Your task to perform on an android device: toggle location history Image 0: 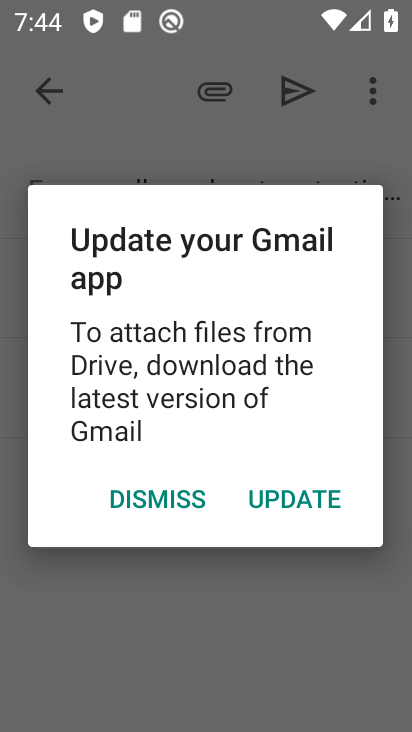
Step 0: press home button
Your task to perform on an android device: toggle location history Image 1: 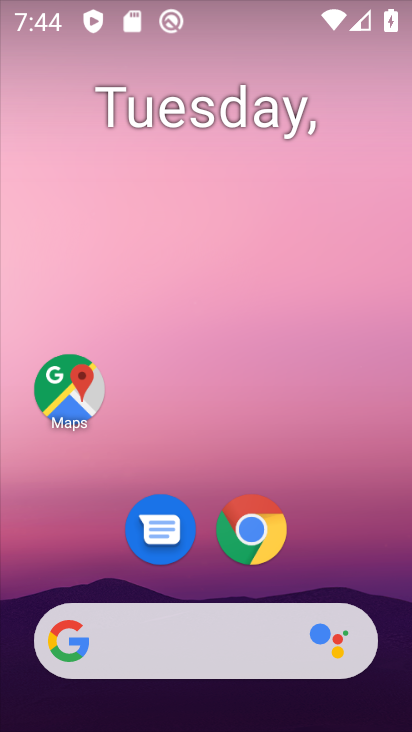
Step 1: drag from (200, 595) to (327, 64)
Your task to perform on an android device: toggle location history Image 2: 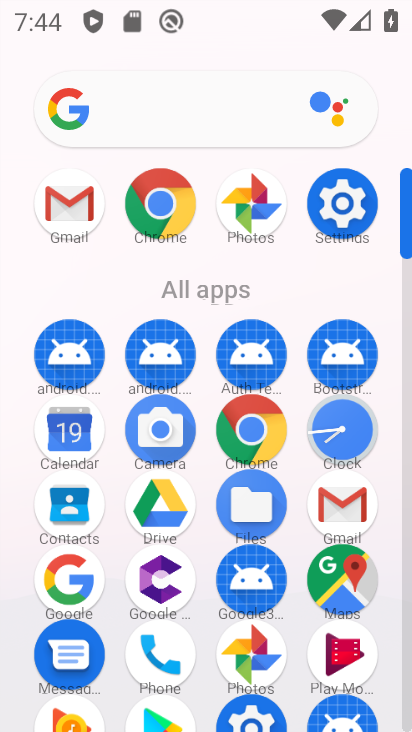
Step 2: click (352, 219)
Your task to perform on an android device: toggle location history Image 3: 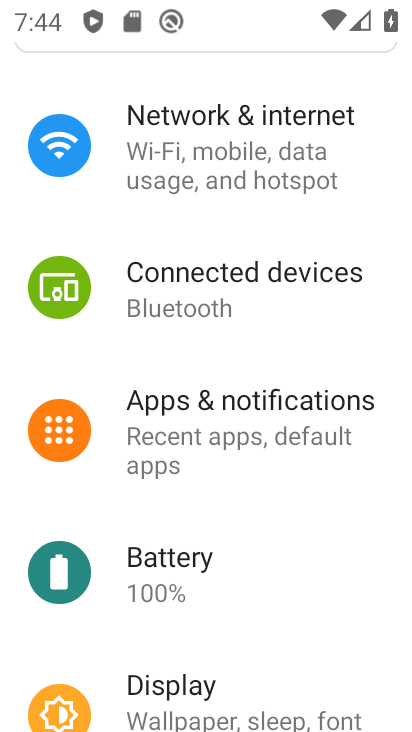
Step 3: drag from (212, 638) to (354, 218)
Your task to perform on an android device: toggle location history Image 4: 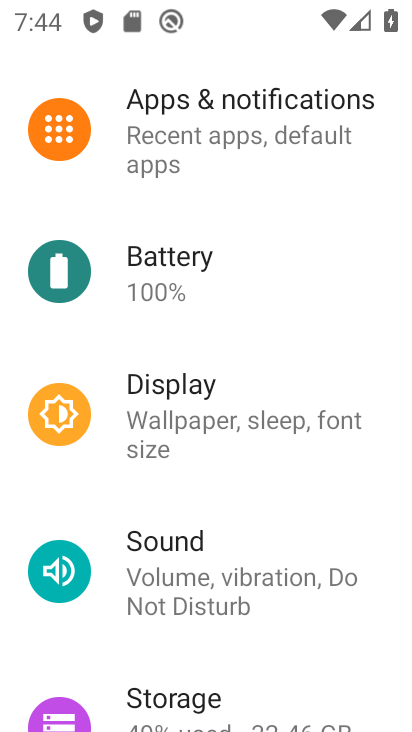
Step 4: drag from (240, 619) to (382, 100)
Your task to perform on an android device: toggle location history Image 5: 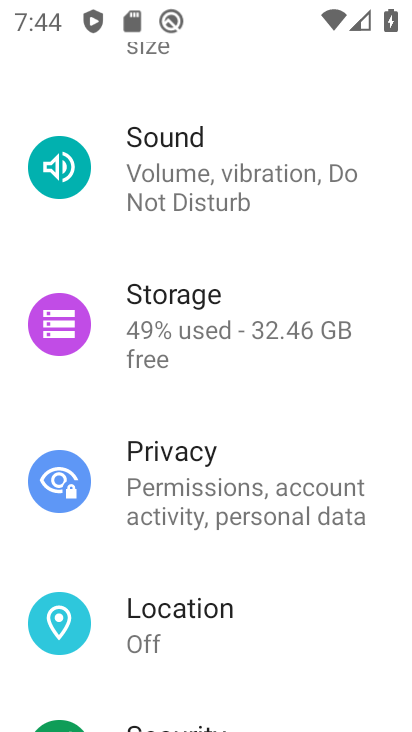
Step 5: click (168, 629)
Your task to perform on an android device: toggle location history Image 6: 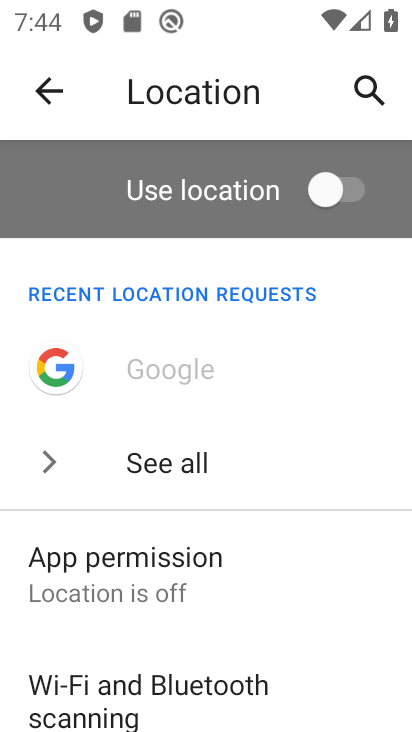
Step 6: drag from (186, 649) to (370, 87)
Your task to perform on an android device: toggle location history Image 7: 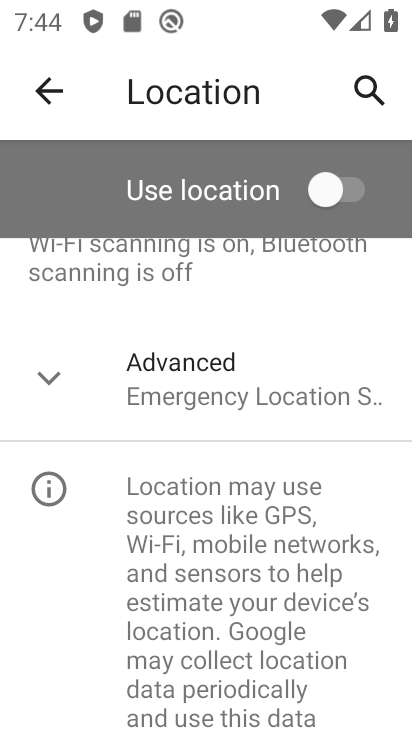
Step 7: click (161, 382)
Your task to perform on an android device: toggle location history Image 8: 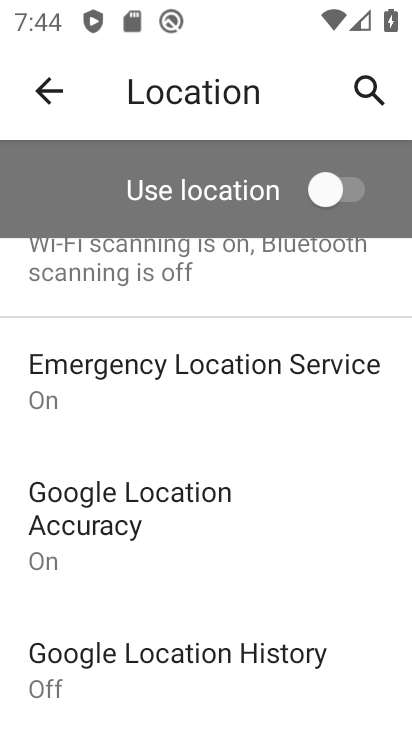
Step 8: drag from (170, 615) to (284, 322)
Your task to perform on an android device: toggle location history Image 9: 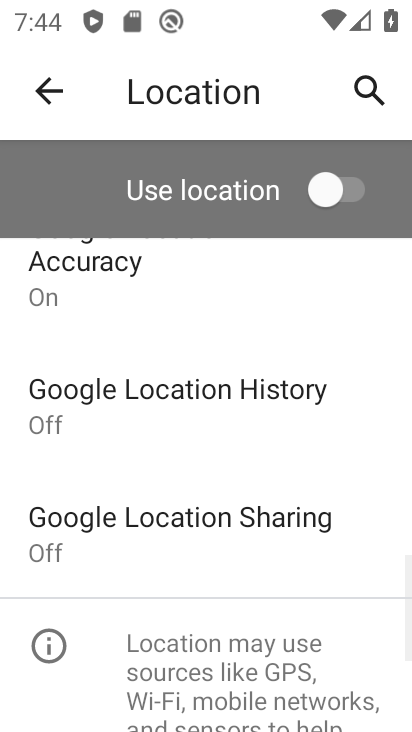
Step 9: click (221, 386)
Your task to perform on an android device: toggle location history Image 10: 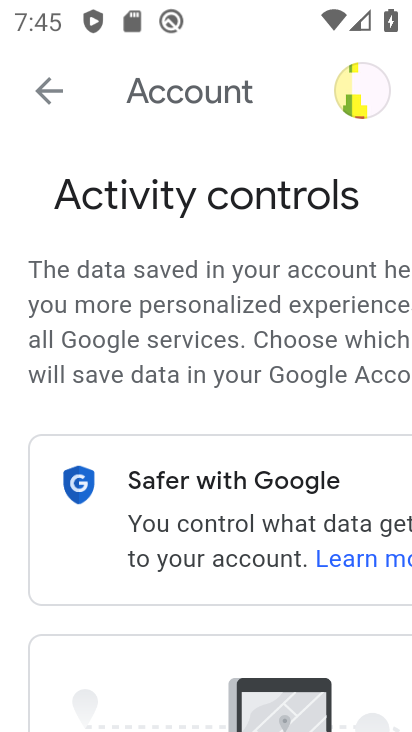
Step 10: drag from (171, 661) to (327, 162)
Your task to perform on an android device: toggle location history Image 11: 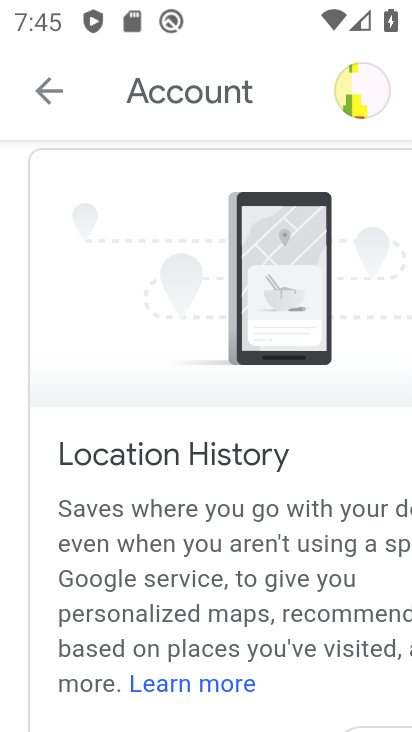
Step 11: drag from (177, 576) to (373, 83)
Your task to perform on an android device: toggle location history Image 12: 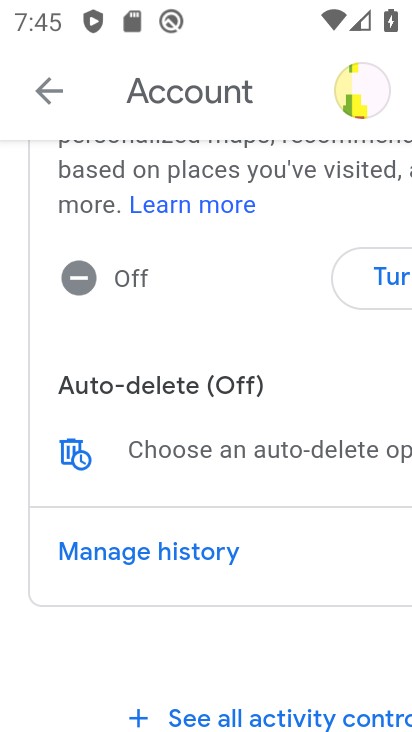
Step 12: click (384, 280)
Your task to perform on an android device: toggle location history Image 13: 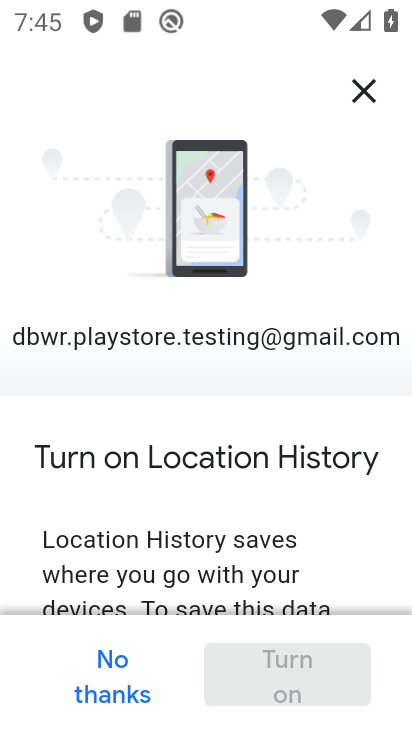
Step 13: drag from (188, 553) to (349, 180)
Your task to perform on an android device: toggle location history Image 14: 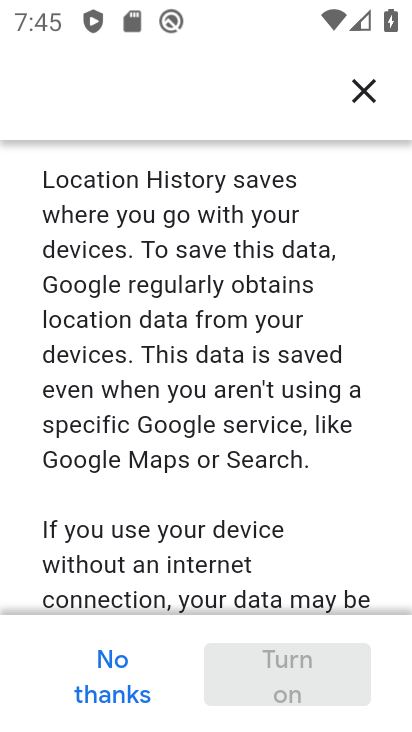
Step 14: drag from (192, 563) to (384, 84)
Your task to perform on an android device: toggle location history Image 15: 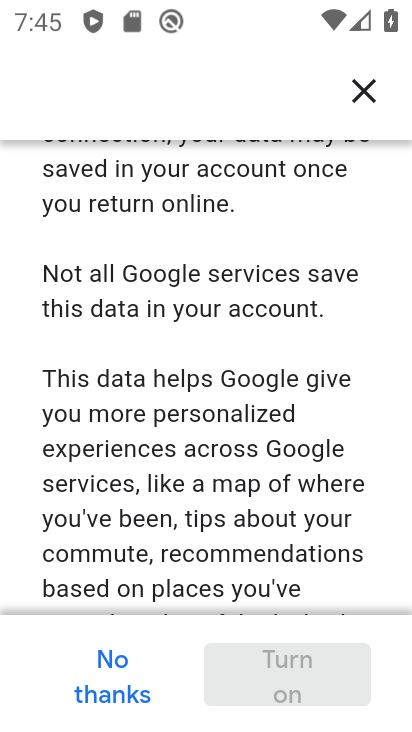
Step 15: drag from (234, 563) to (408, 41)
Your task to perform on an android device: toggle location history Image 16: 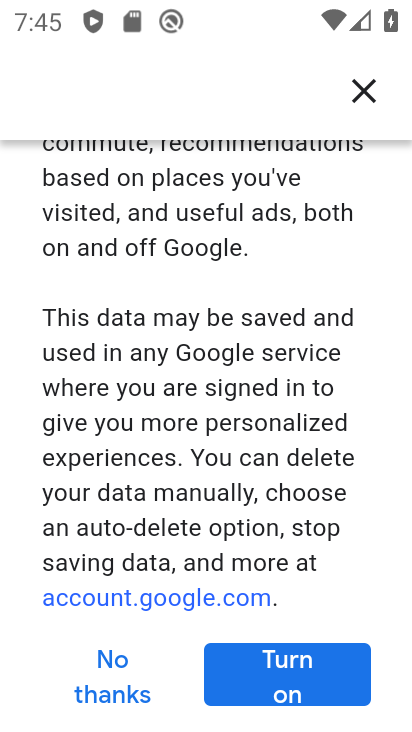
Step 16: click (282, 673)
Your task to perform on an android device: toggle location history Image 17: 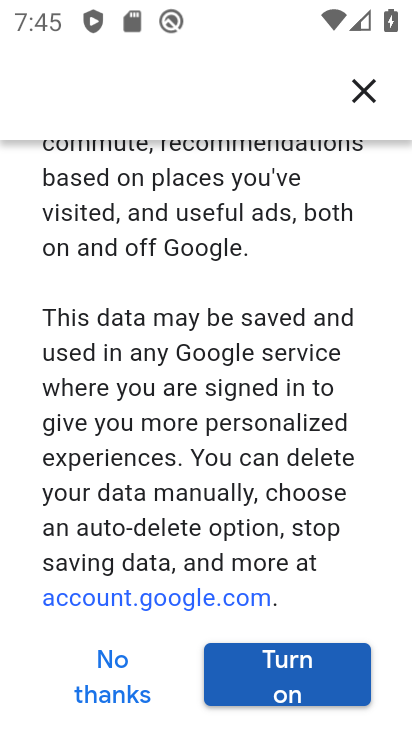
Step 17: click (291, 679)
Your task to perform on an android device: toggle location history Image 18: 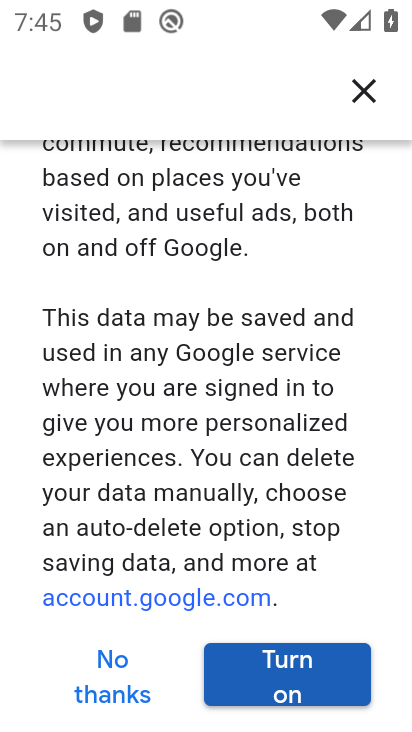
Step 18: click (281, 674)
Your task to perform on an android device: toggle location history Image 19: 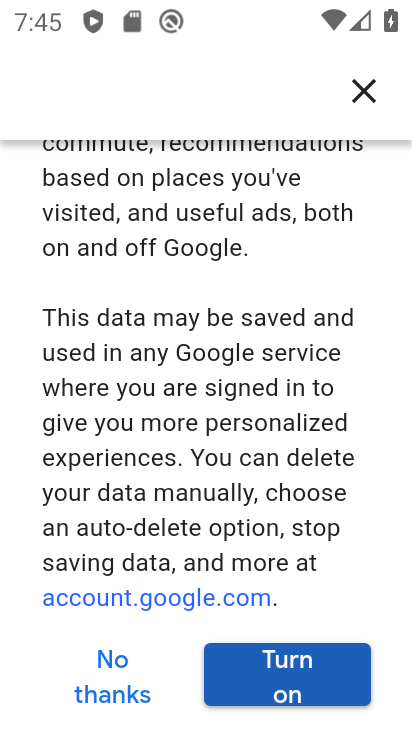
Step 19: click (291, 674)
Your task to perform on an android device: toggle location history Image 20: 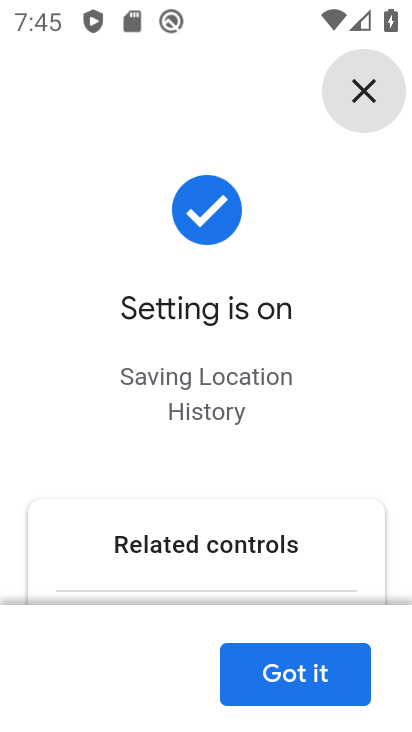
Step 20: task complete